Your task to perform on an android device: visit the assistant section in the google photos Image 0: 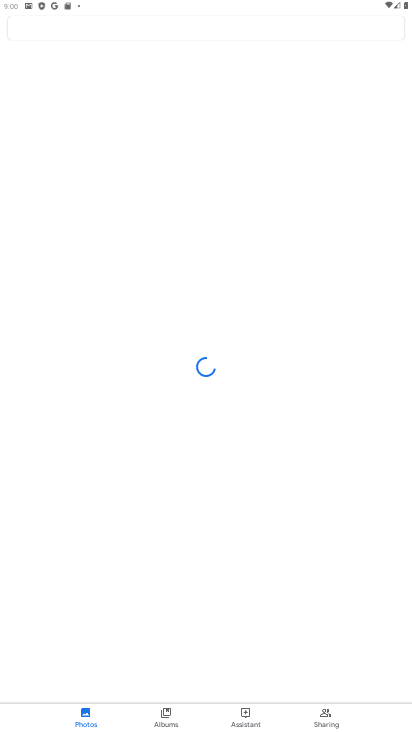
Step 0: drag from (219, 640) to (234, 523)
Your task to perform on an android device: visit the assistant section in the google photos Image 1: 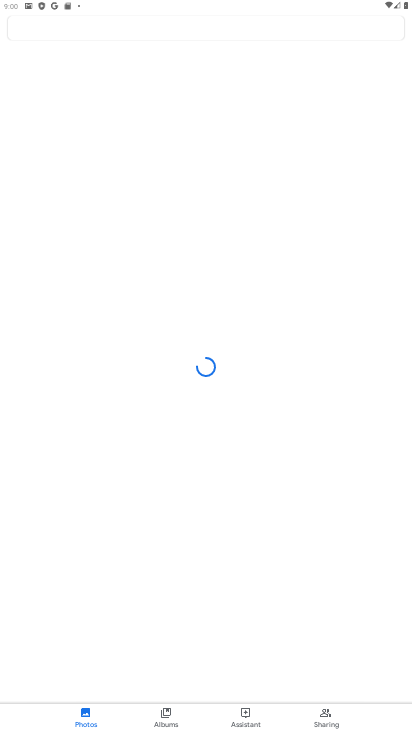
Step 1: press home button
Your task to perform on an android device: visit the assistant section in the google photos Image 2: 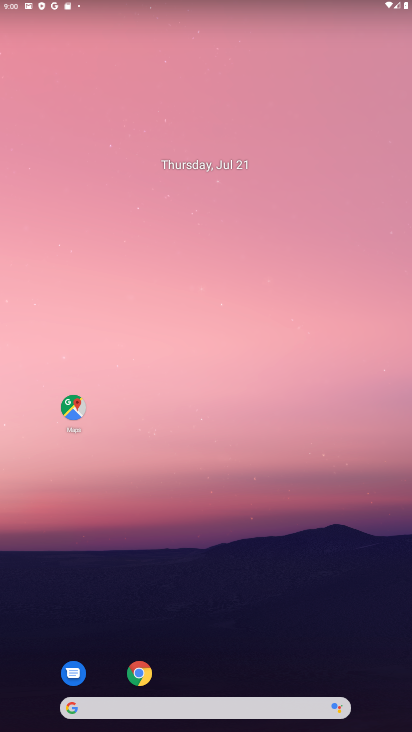
Step 2: drag from (212, 678) to (204, 51)
Your task to perform on an android device: visit the assistant section in the google photos Image 3: 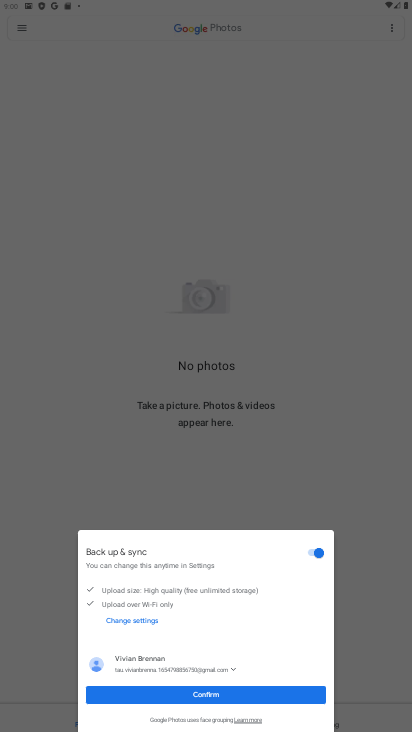
Step 3: click (123, 381)
Your task to perform on an android device: visit the assistant section in the google photos Image 4: 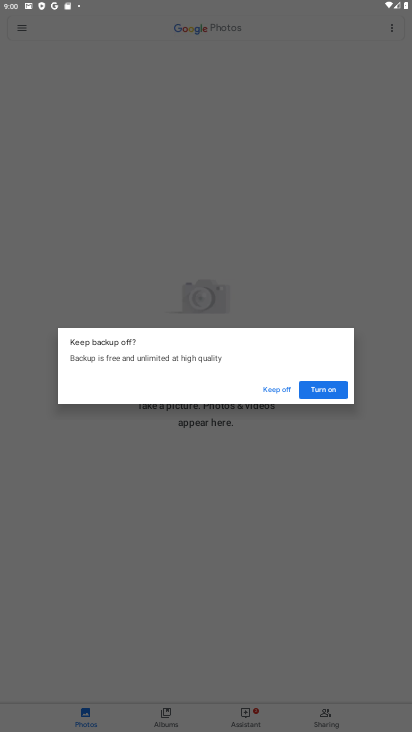
Step 4: click (265, 387)
Your task to perform on an android device: visit the assistant section in the google photos Image 5: 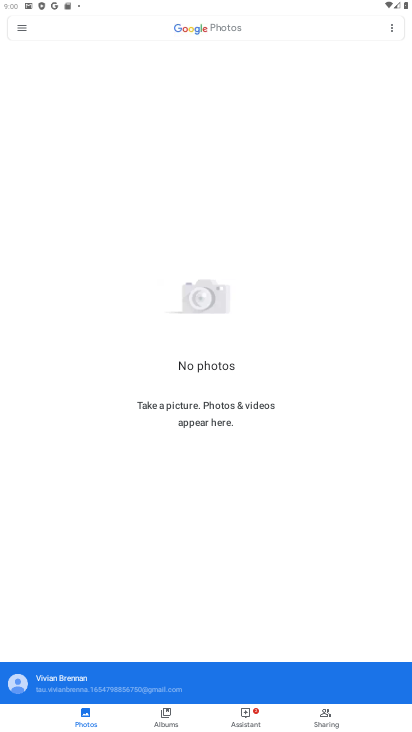
Step 5: click (245, 710)
Your task to perform on an android device: visit the assistant section in the google photos Image 6: 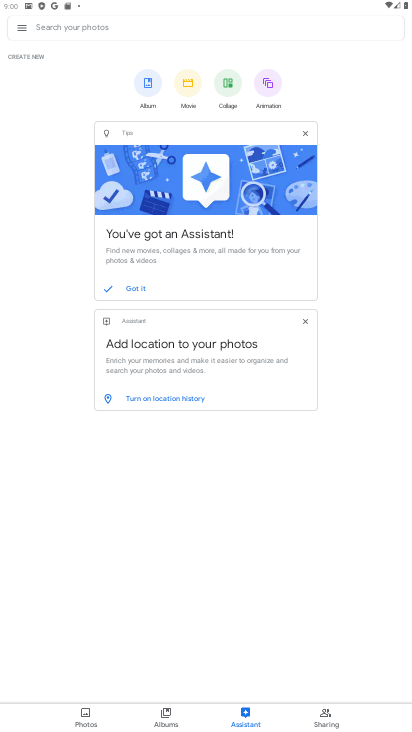
Step 6: task complete